Your task to perform on an android device: open chrome and create a bookmark for the current page Image 0: 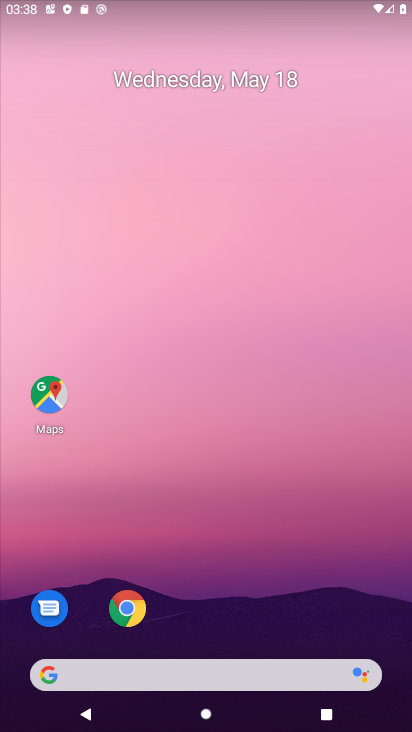
Step 0: click (127, 611)
Your task to perform on an android device: open chrome and create a bookmark for the current page Image 1: 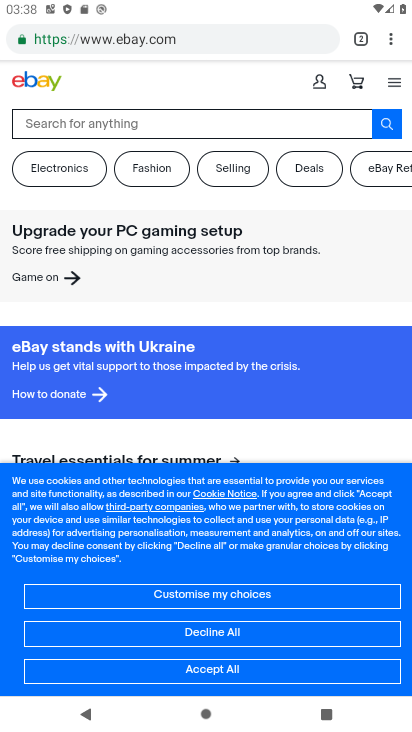
Step 1: click (391, 43)
Your task to perform on an android device: open chrome and create a bookmark for the current page Image 2: 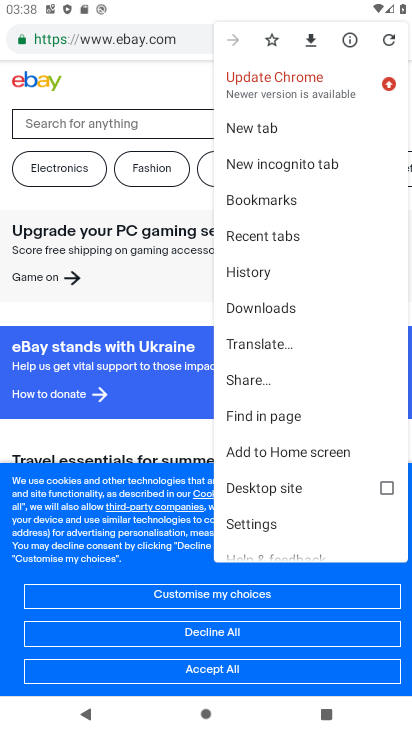
Step 2: click (265, 38)
Your task to perform on an android device: open chrome and create a bookmark for the current page Image 3: 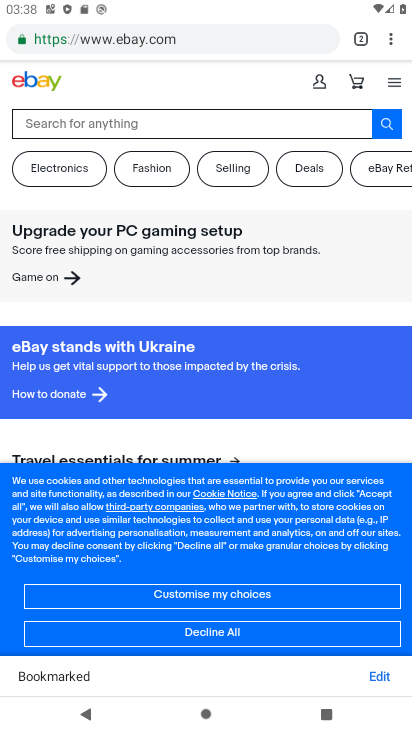
Step 3: task complete